Your task to perform on an android device: Open the web browser Image 0: 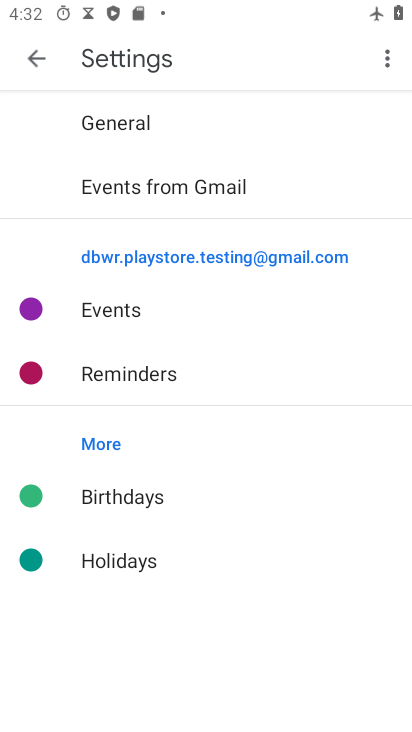
Step 0: press home button
Your task to perform on an android device: Open the web browser Image 1: 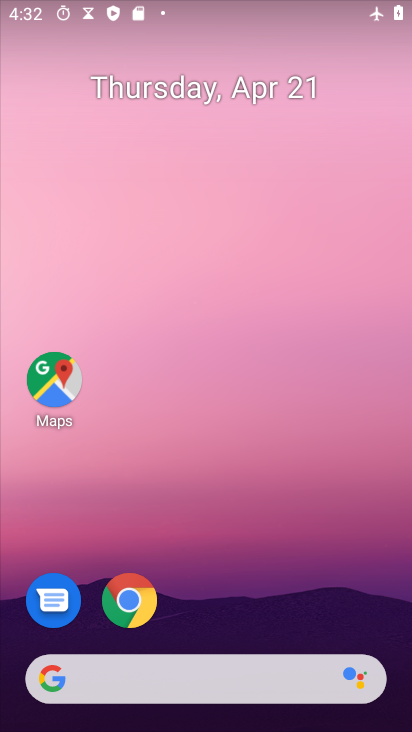
Step 1: drag from (218, 578) to (163, 50)
Your task to perform on an android device: Open the web browser Image 2: 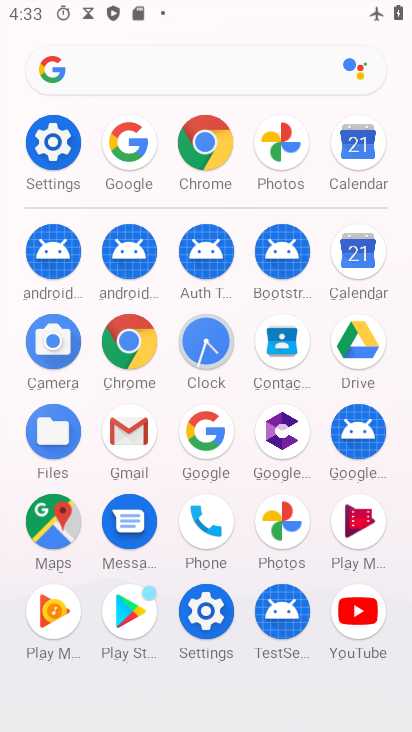
Step 2: click (204, 142)
Your task to perform on an android device: Open the web browser Image 3: 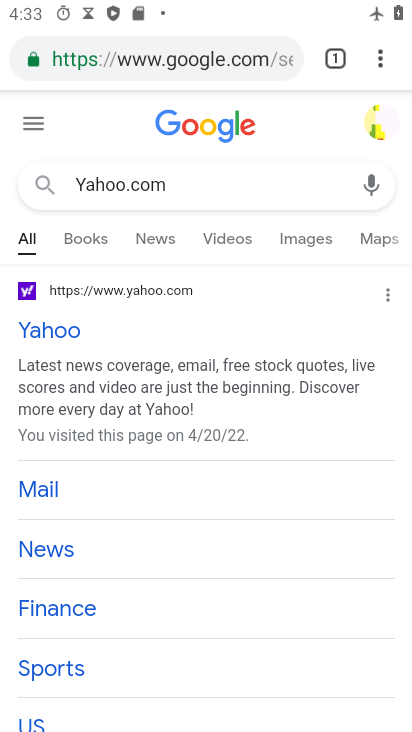
Step 3: task complete